Your task to perform on an android device: Open calendar and show me the second week of next month Image 0: 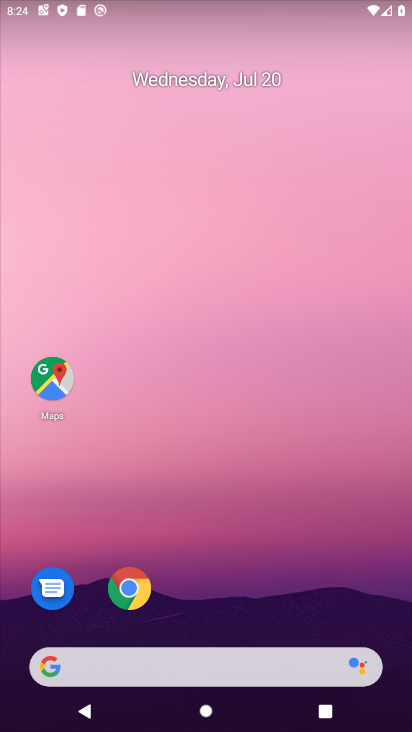
Step 0: click (176, 79)
Your task to perform on an android device: Open calendar and show me the second week of next month Image 1: 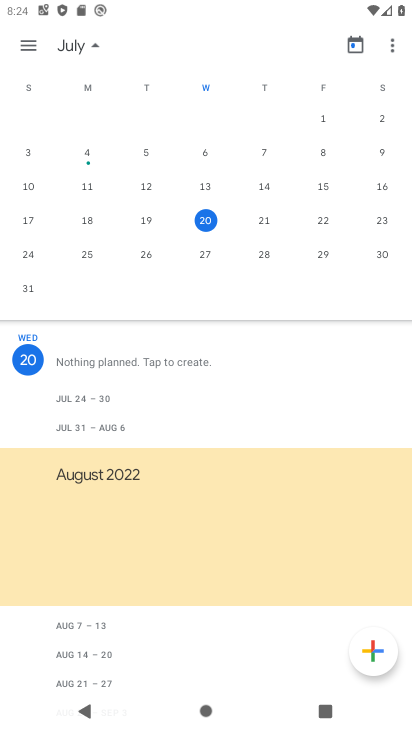
Step 1: click (85, 39)
Your task to perform on an android device: Open calendar and show me the second week of next month Image 2: 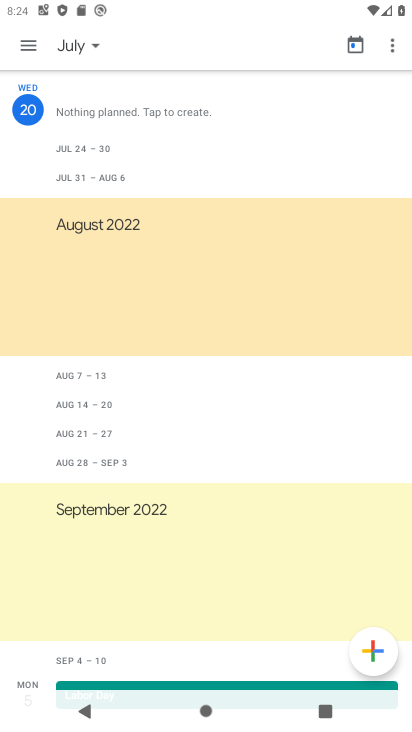
Step 2: click (85, 39)
Your task to perform on an android device: Open calendar and show me the second week of next month Image 3: 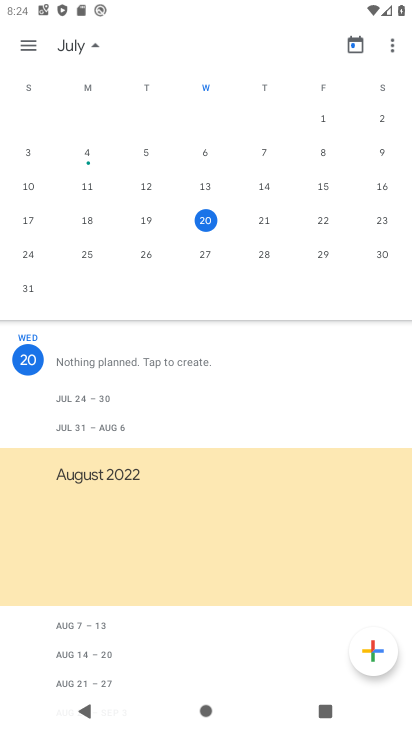
Step 3: drag from (370, 275) to (14, 319)
Your task to perform on an android device: Open calendar and show me the second week of next month Image 4: 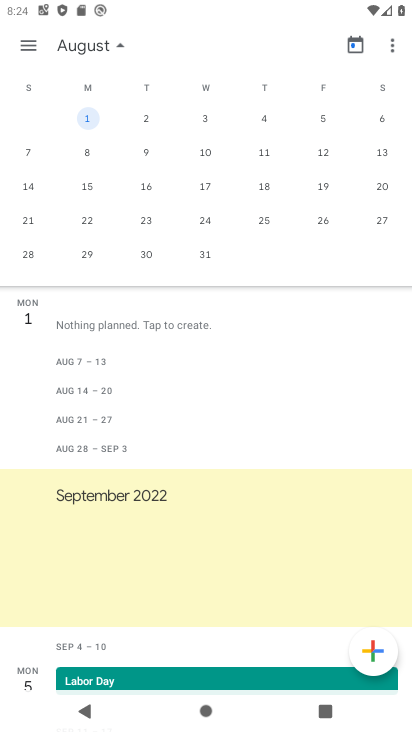
Step 4: click (206, 149)
Your task to perform on an android device: Open calendar and show me the second week of next month Image 5: 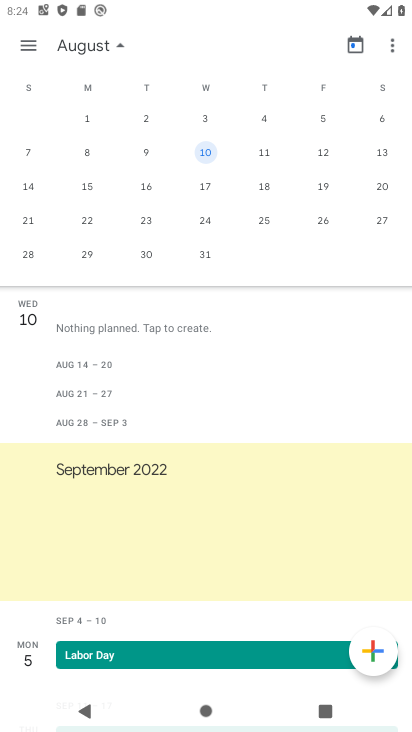
Step 5: task complete